Your task to perform on an android device: turn on javascript in the chrome app Image 0: 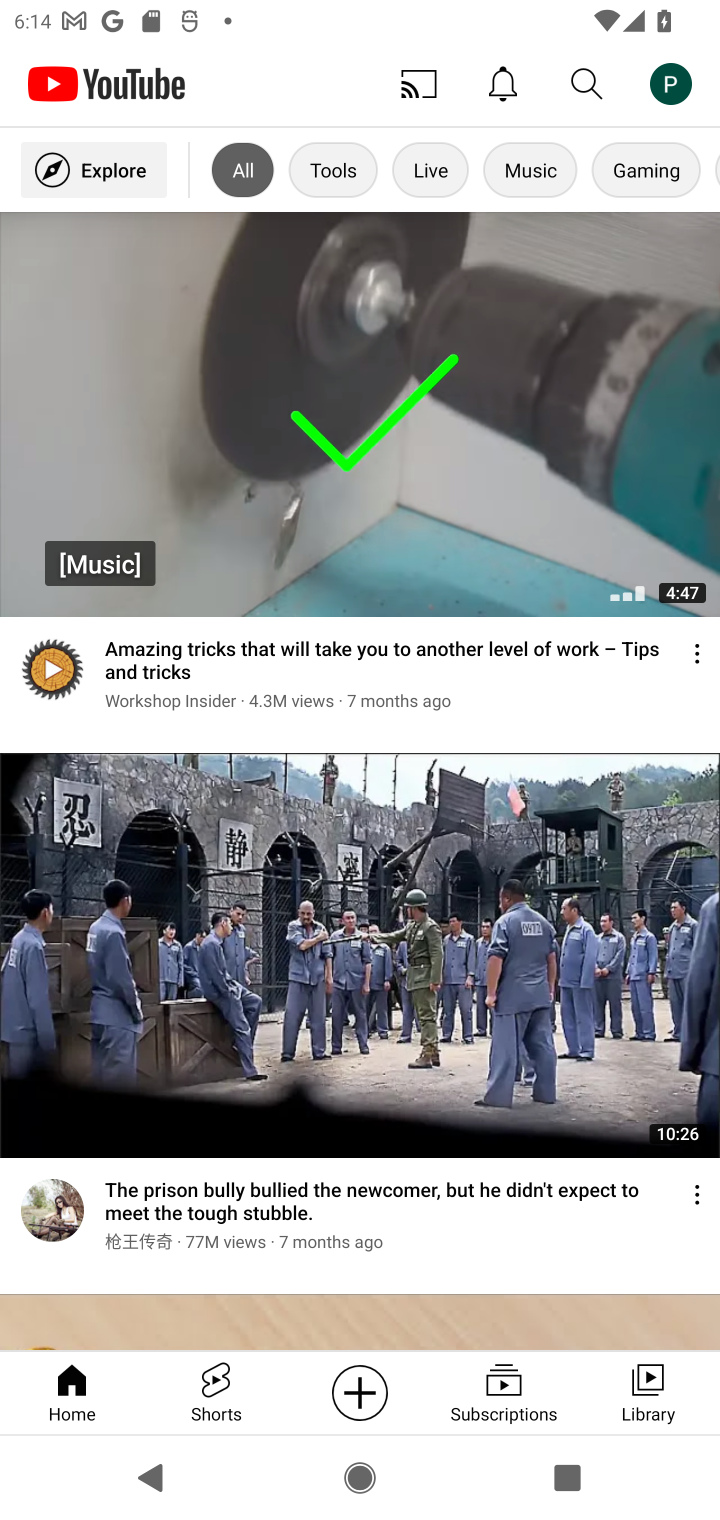
Step 0: press home button
Your task to perform on an android device: turn on javascript in the chrome app Image 1: 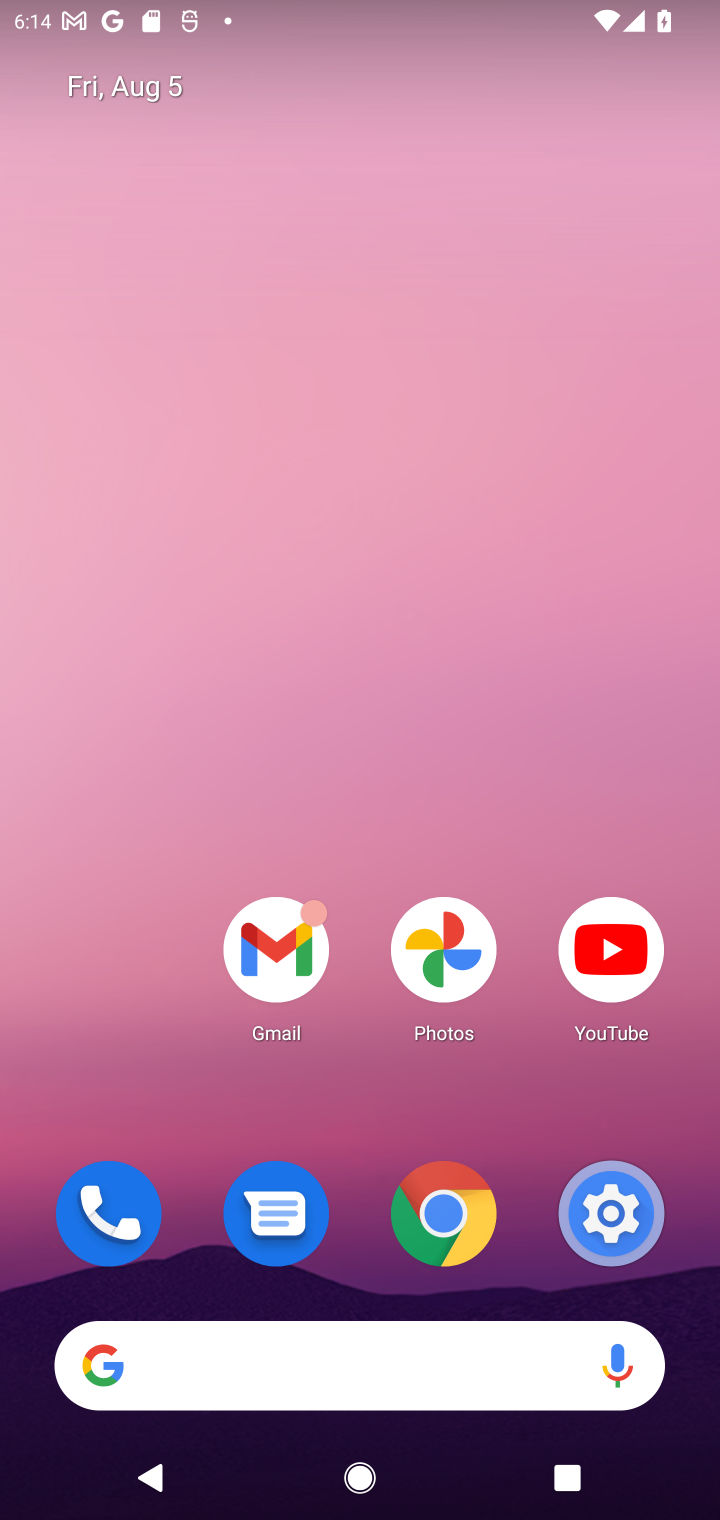
Step 1: click (597, 1241)
Your task to perform on an android device: turn on javascript in the chrome app Image 2: 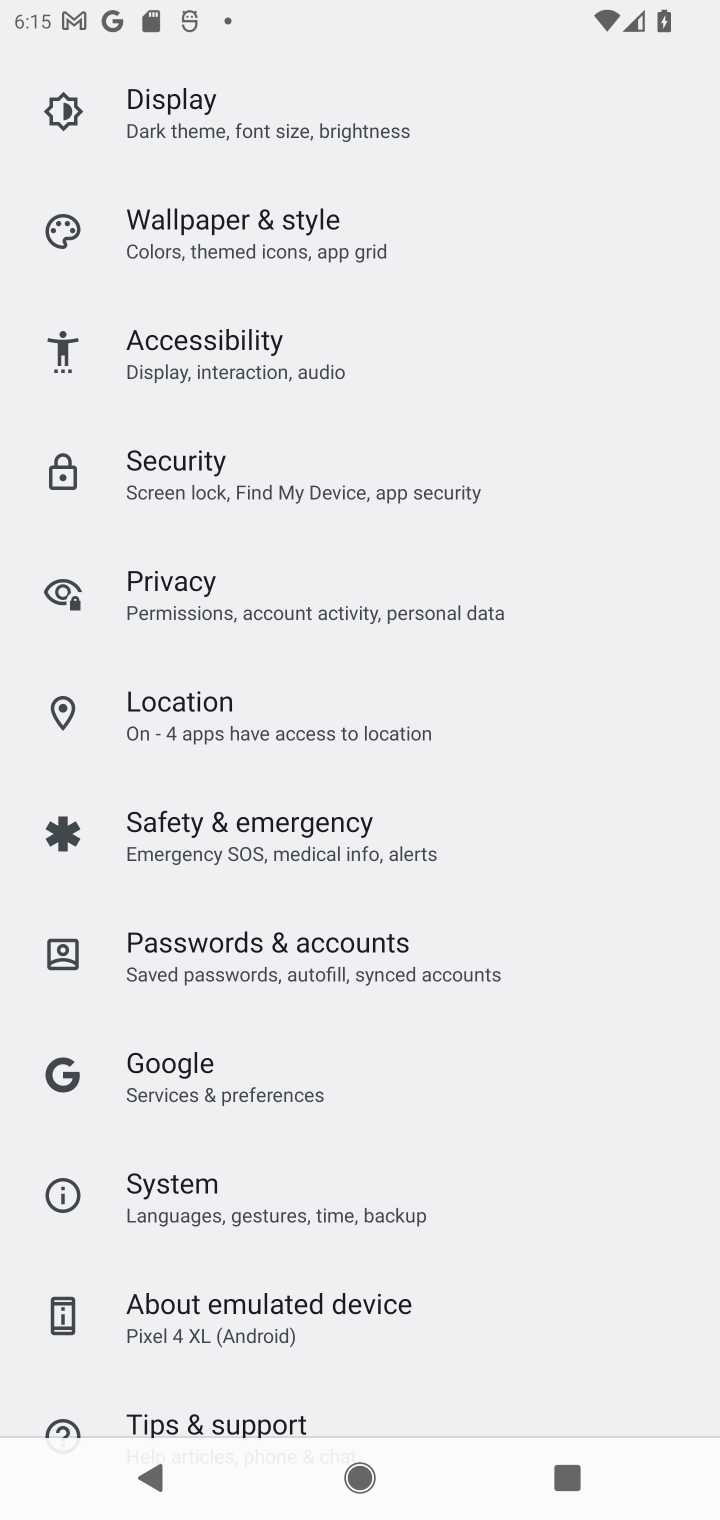
Step 2: task complete